Your task to perform on an android device: Play the last video I watched on Youtube Image 0: 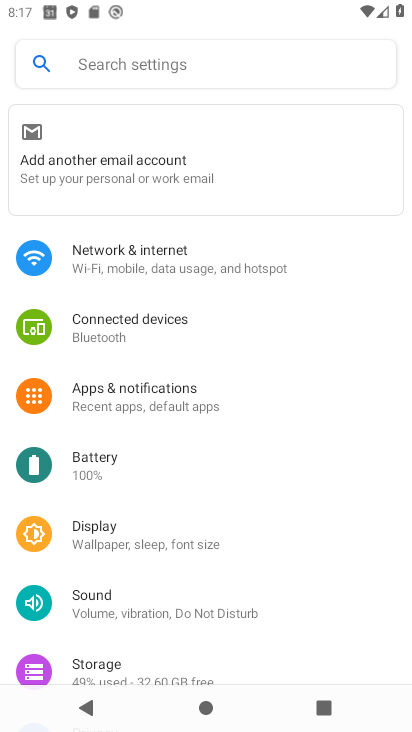
Step 0: press home button
Your task to perform on an android device: Play the last video I watched on Youtube Image 1: 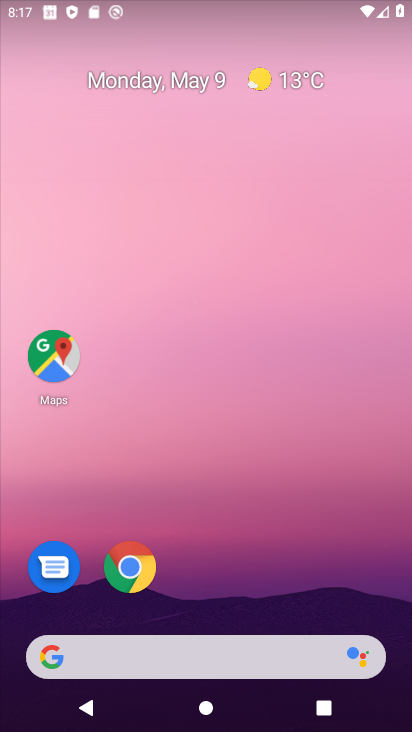
Step 1: drag from (298, 571) to (306, 49)
Your task to perform on an android device: Play the last video I watched on Youtube Image 2: 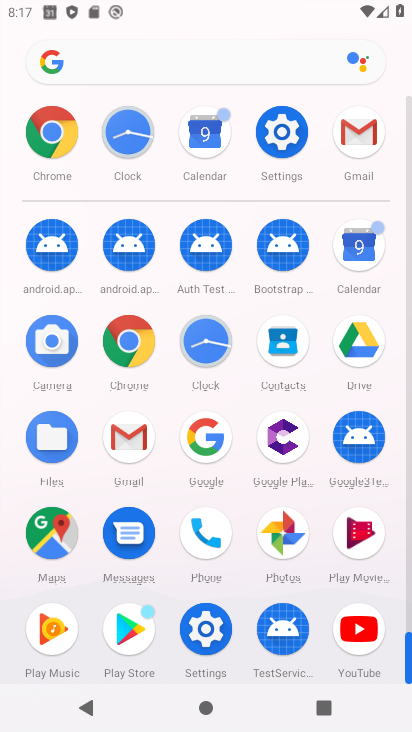
Step 2: click (359, 613)
Your task to perform on an android device: Play the last video I watched on Youtube Image 3: 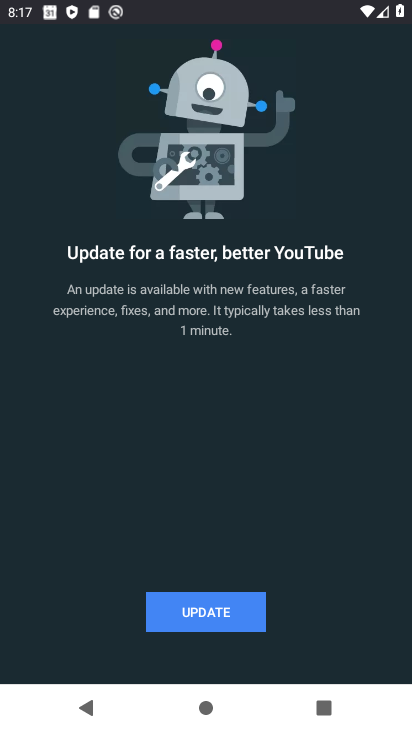
Step 3: click (247, 603)
Your task to perform on an android device: Play the last video I watched on Youtube Image 4: 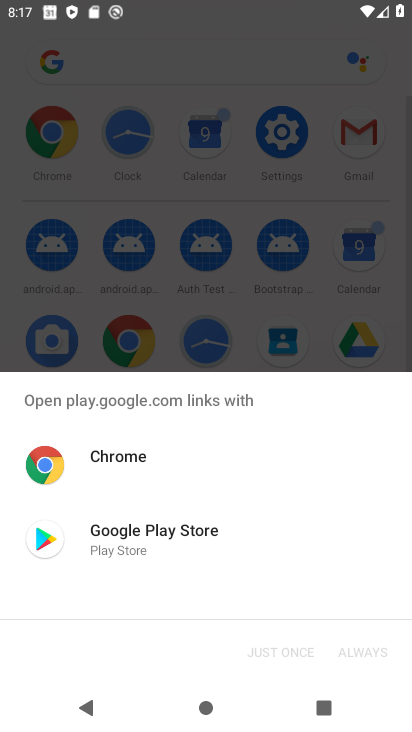
Step 4: click (224, 533)
Your task to perform on an android device: Play the last video I watched on Youtube Image 5: 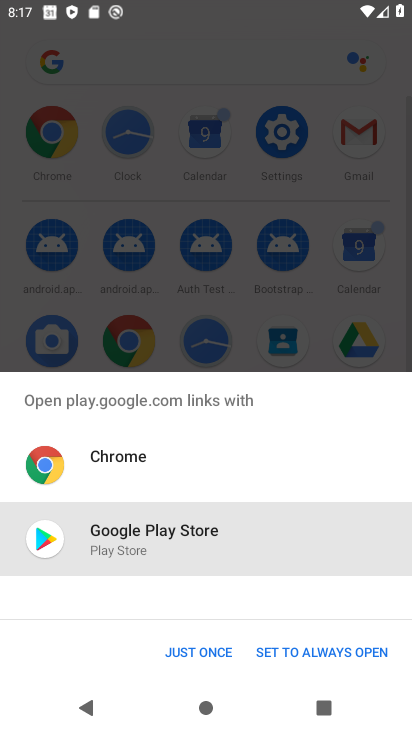
Step 5: click (205, 646)
Your task to perform on an android device: Play the last video I watched on Youtube Image 6: 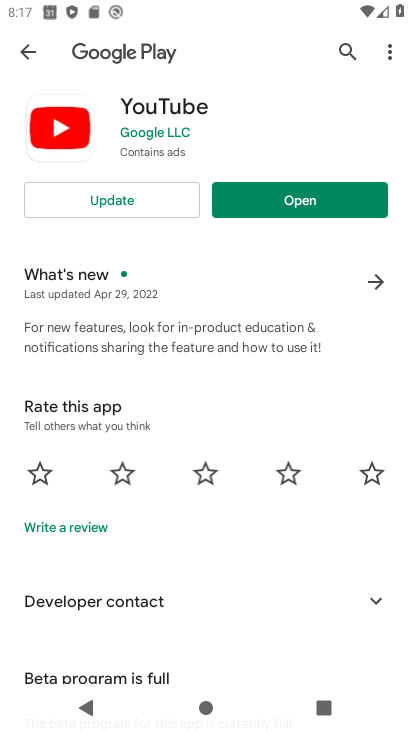
Step 6: click (165, 203)
Your task to perform on an android device: Play the last video I watched on Youtube Image 7: 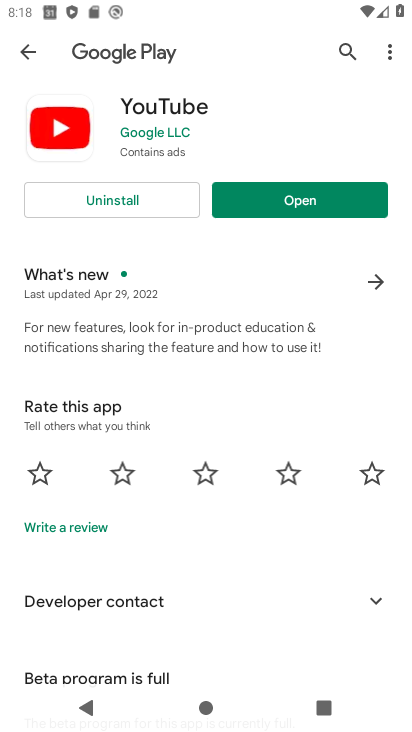
Step 7: click (327, 203)
Your task to perform on an android device: Play the last video I watched on Youtube Image 8: 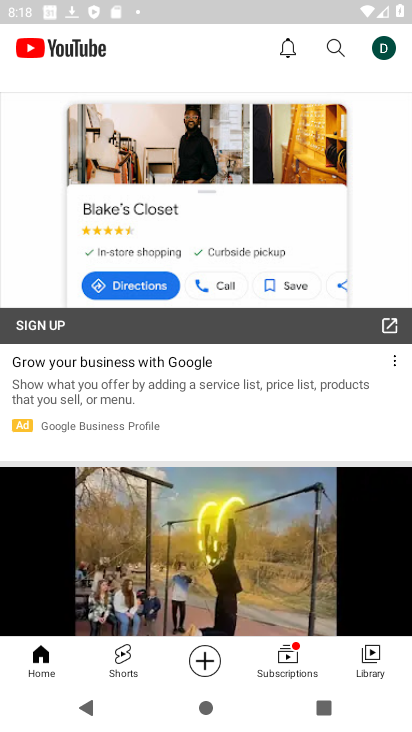
Step 8: click (381, 46)
Your task to perform on an android device: Play the last video I watched on Youtube Image 9: 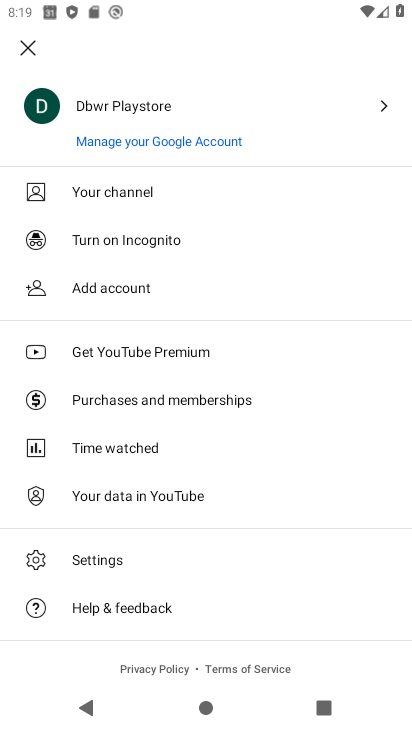
Step 9: click (150, 441)
Your task to perform on an android device: Play the last video I watched on Youtube Image 10: 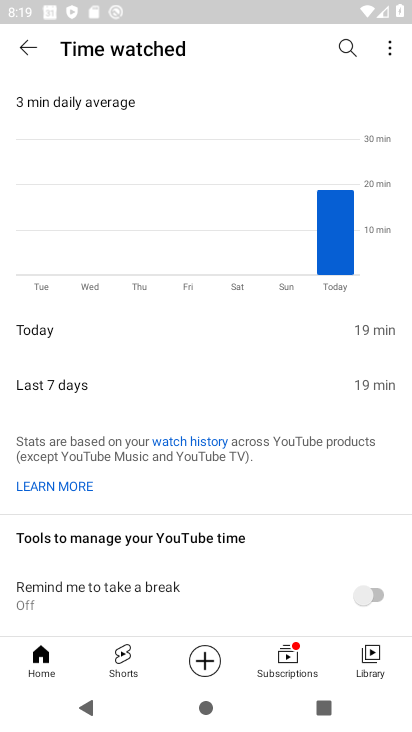
Step 10: drag from (195, 504) to (188, 167)
Your task to perform on an android device: Play the last video I watched on Youtube Image 11: 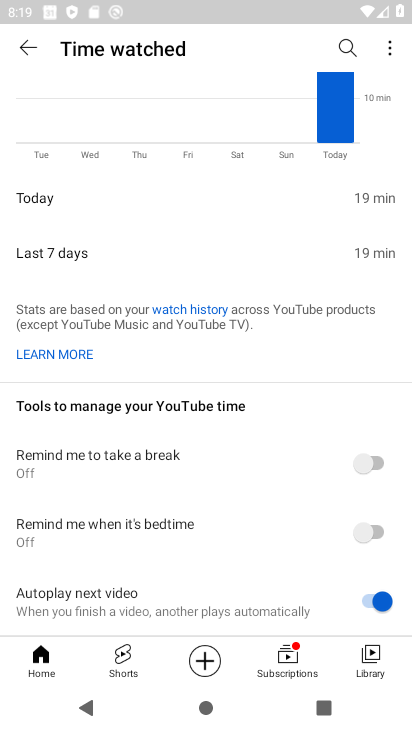
Step 11: click (32, 41)
Your task to perform on an android device: Play the last video I watched on Youtube Image 12: 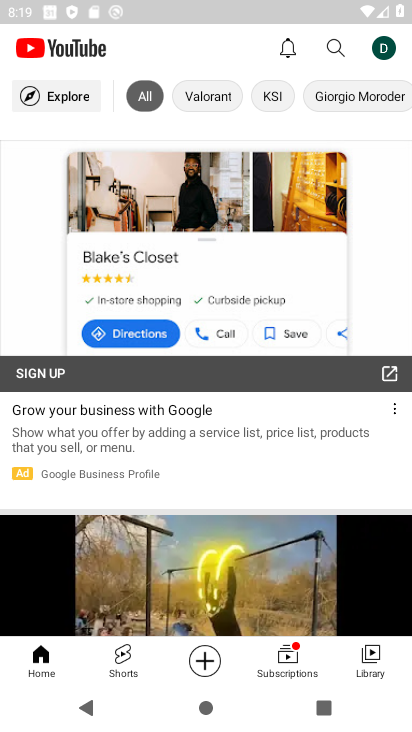
Step 12: click (368, 654)
Your task to perform on an android device: Play the last video I watched on Youtube Image 13: 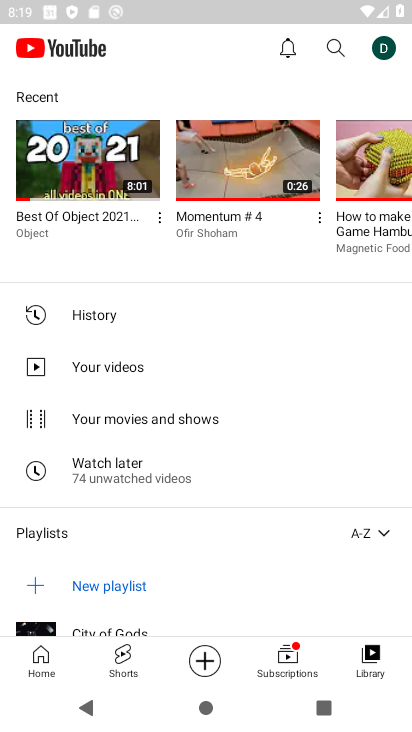
Step 13: click (100, 307)
Your task to perform on an android device: Play the last video I watched on Youtube Image 14: 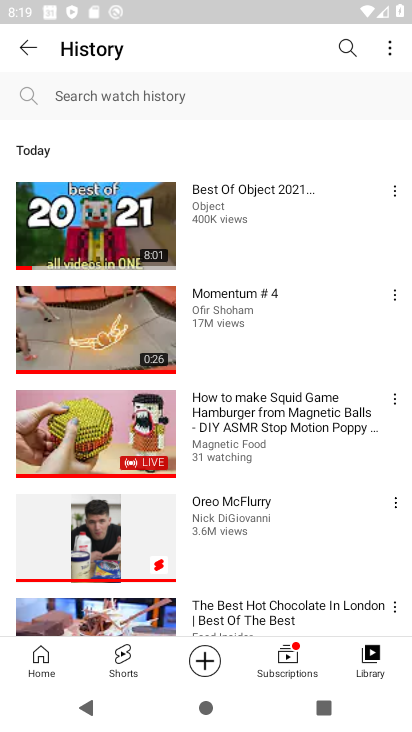
Step 14: click (123, 219)
Your task to perform on an android device: Play the last video I watched on Youtube Image 15: 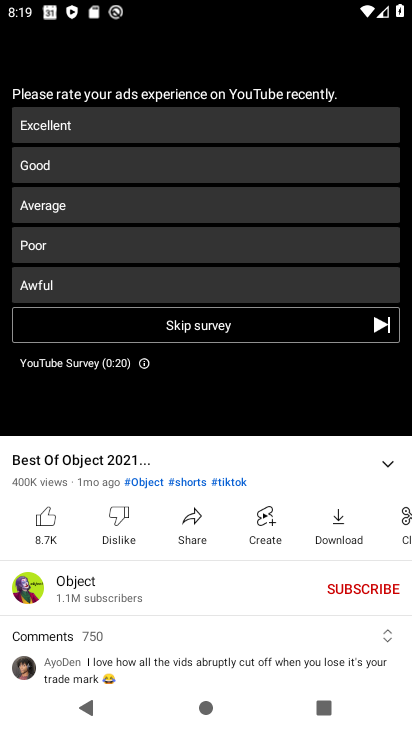
Step 15: click (235, 330)
Your task to perform on an android device: Play the last video I watched on Youtube Image 16: 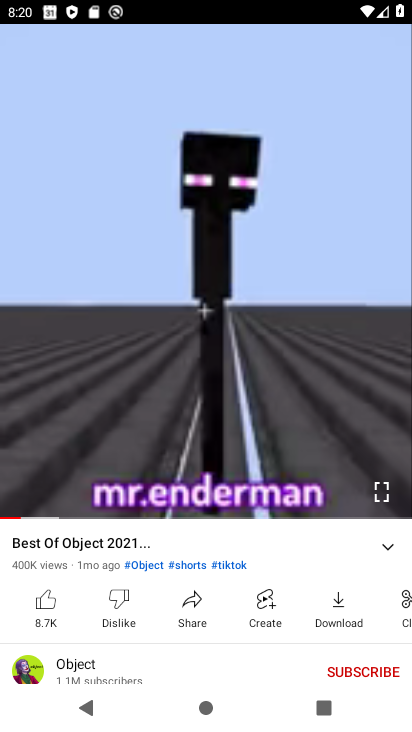
Step 16: click (234, 363)
Your task to perform on an android device: Play the last video I watched on Youtube Image 17: 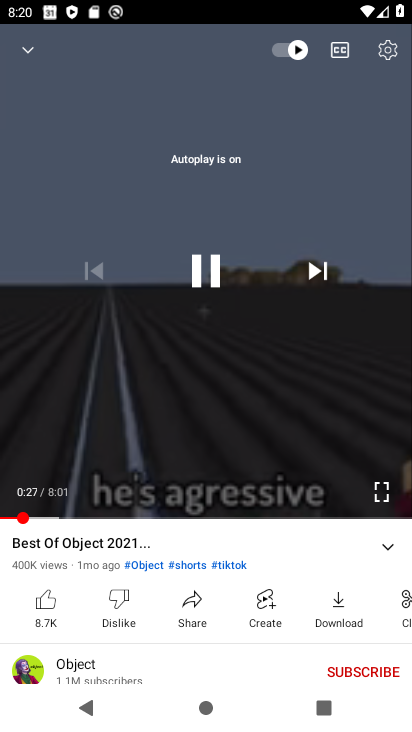
Step 17: click (198, 271)
Your task to perform on an android device: Play the last video I watched on Youtube Image 18: 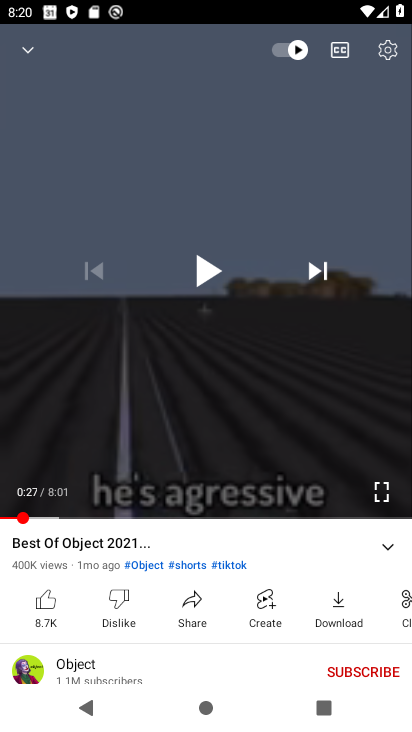
Step 18: task complete